Your task to perform on an android device: Open maps Image 0: 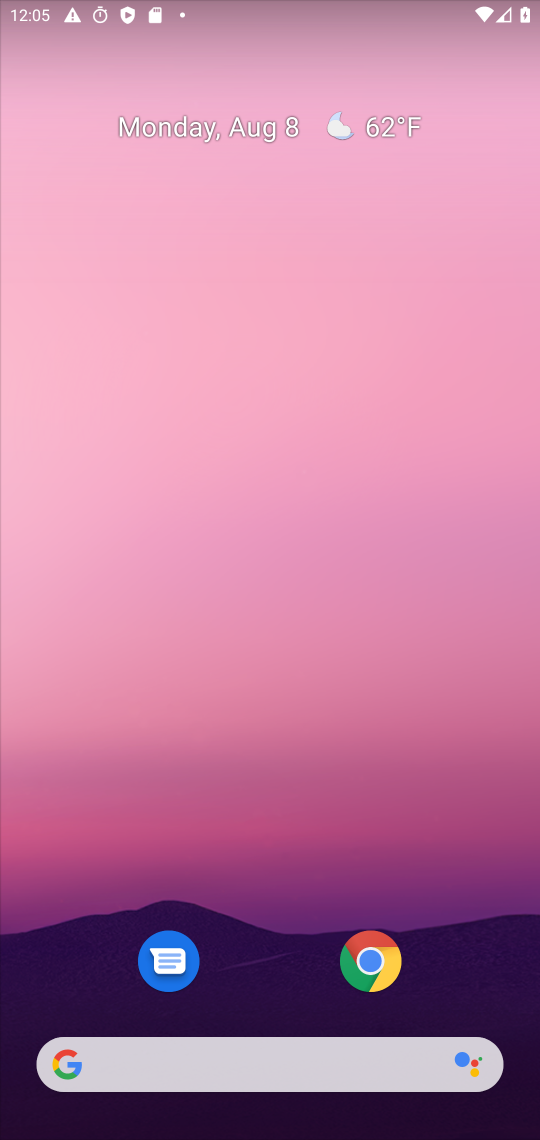
Step 0: drag from (410, 1073) to (405, 595)
Your task to perform on an android device: Open maps Image 1: 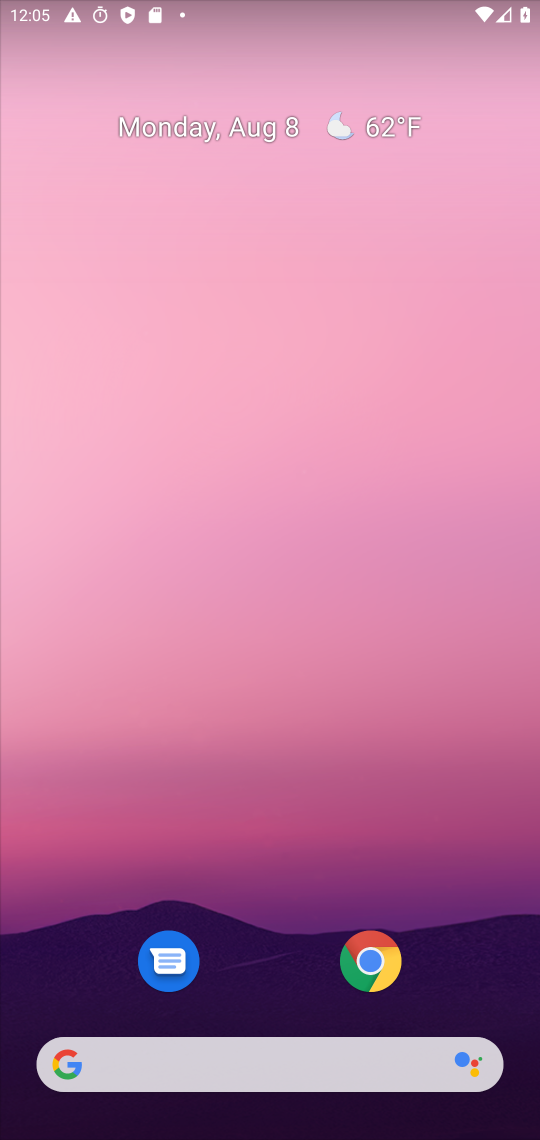
Step 1: drag from (249, 1057) to (354, 354)
Your task to perform on an android device: Open maps Image 2: 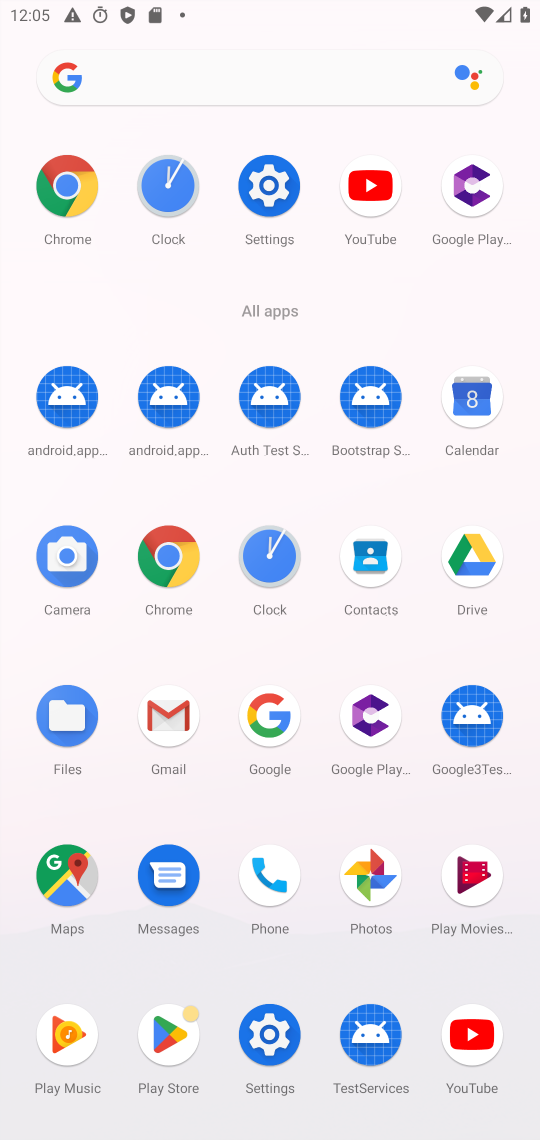
Step 2: click (56, 873)
Your task to perform on an android device: Open maps Image 3: 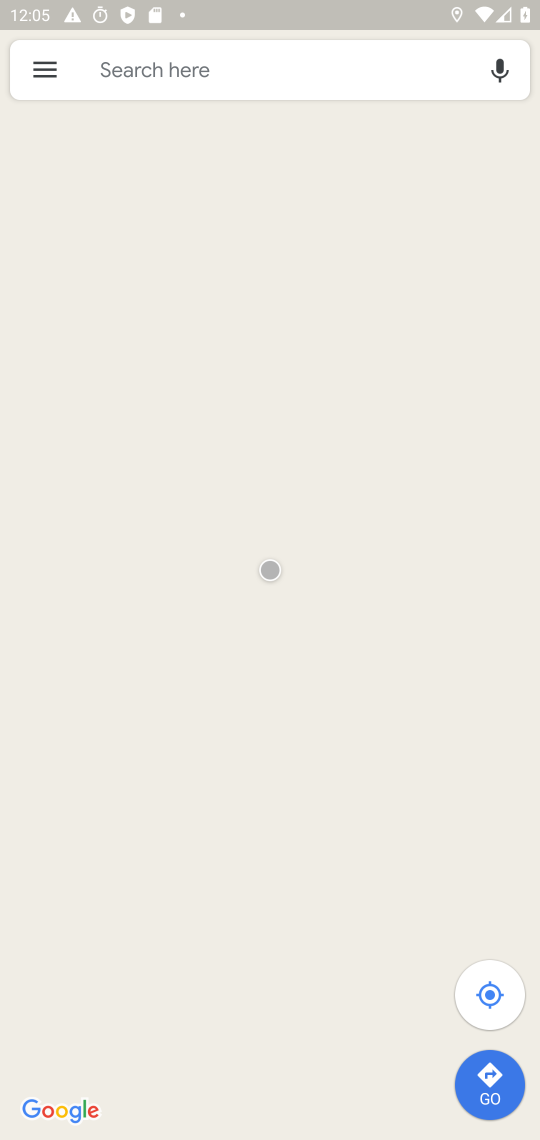
Step 3: task complete